Your task to perform on an android device: Do I have any events today? Image 0: 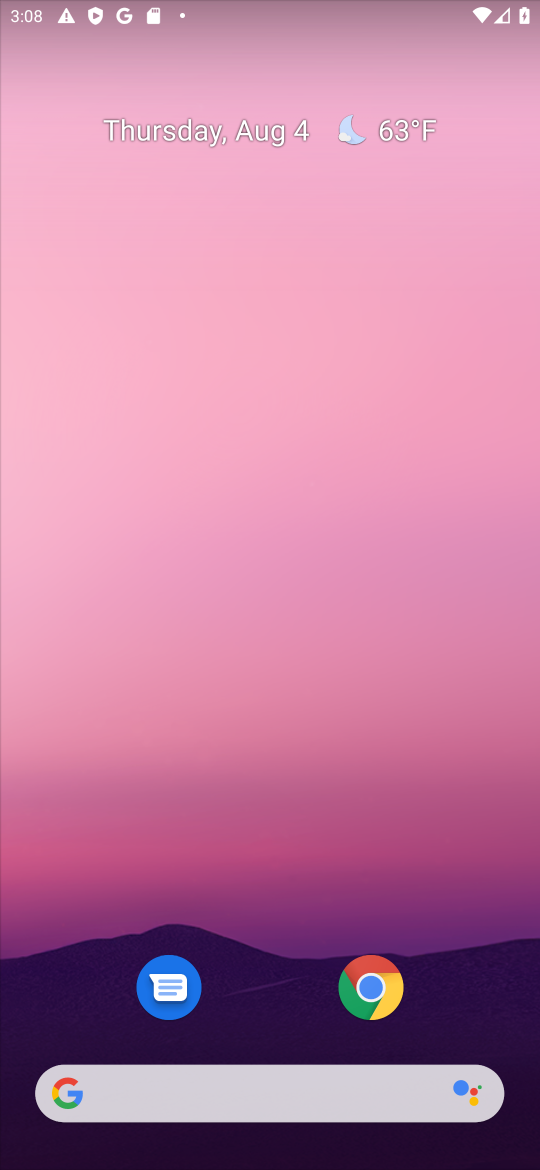
Step 0: drag from (263, 988) to (300, 14)
Your task to perform on an android device: Do I have any events today? Image 1: 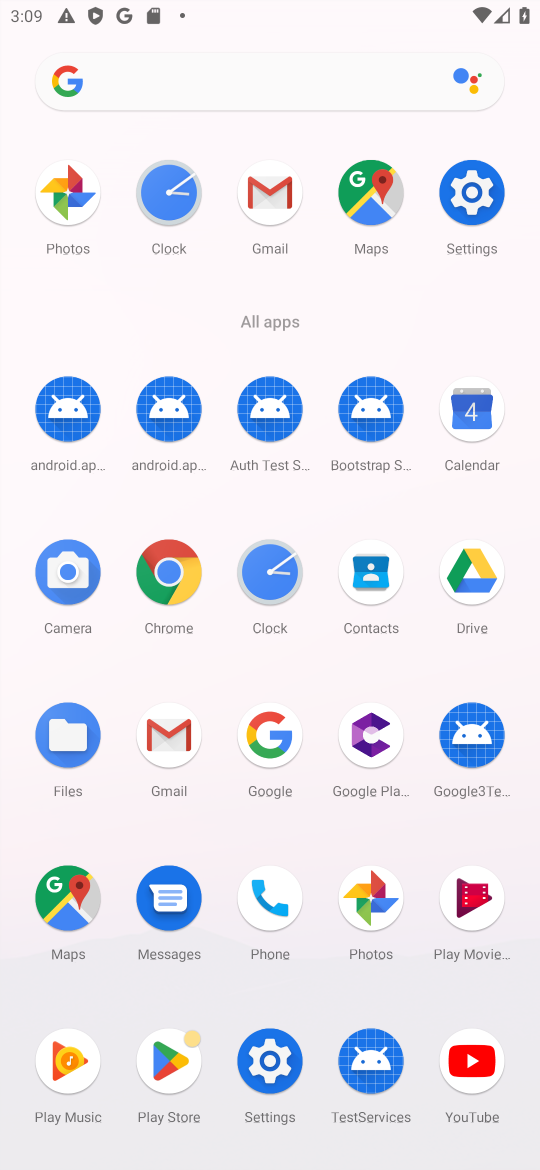
Step 1: click (478, 455)
Your task to perform on an android device: Do I have any events today? Image 2: 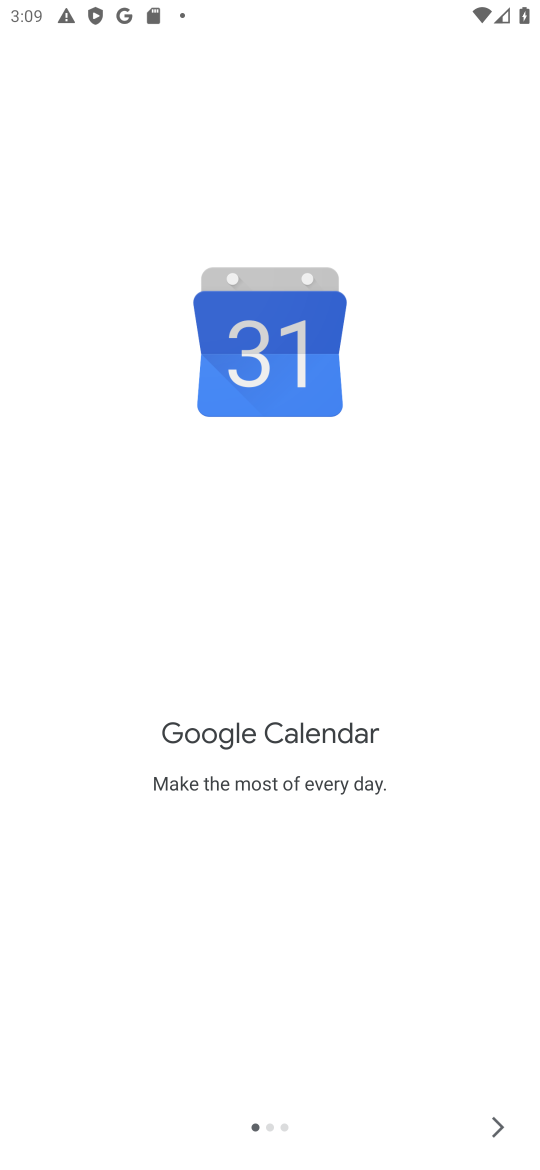
Step 2: click (494, 1135)
Your task to perform on an android device: Do I have any events today? Image 3: 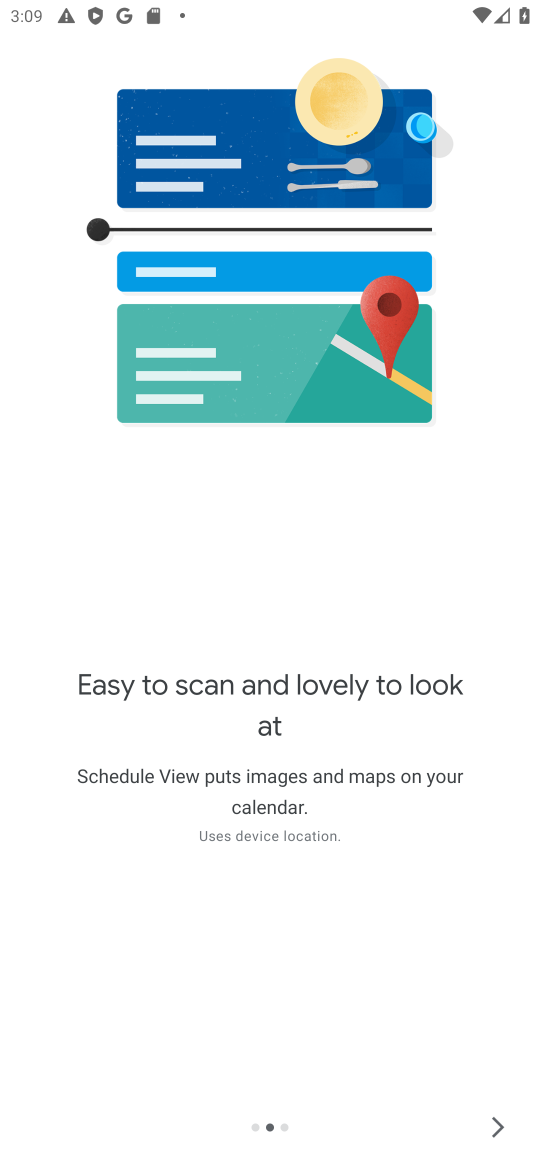
Step 3: click (494, 1135)
Your task to perform on an android device: Do I have any events today? Image 4: 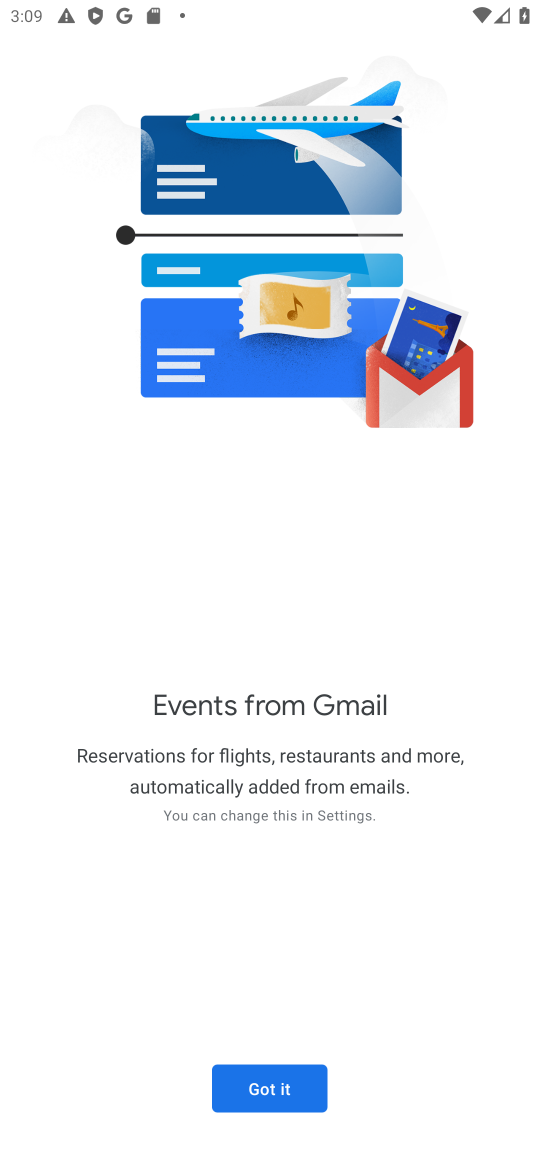
Step 4: click (231, 1083)
Your task to perform on an android device: Do I have any events today? Image 5: 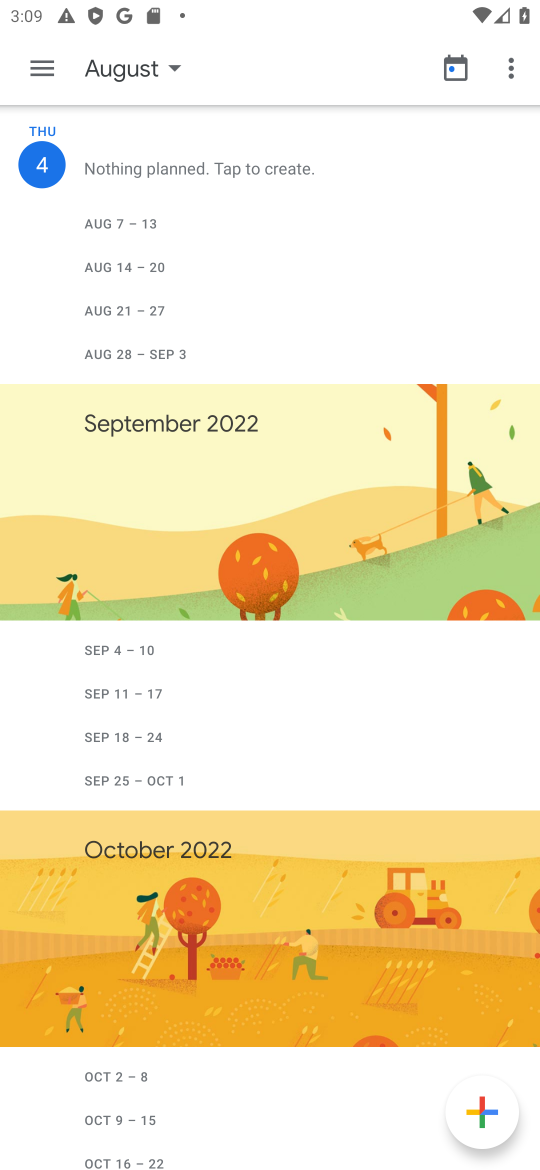
Step 5: task complete